Your task to perform on an android device: check android version Image 0: 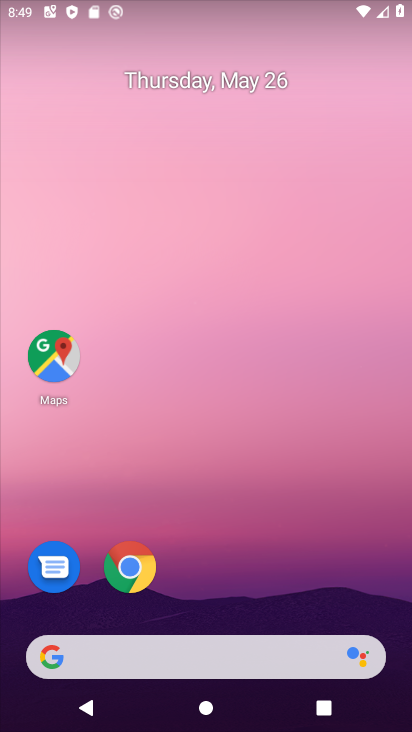
Step 0: press home button
Your task to perform on an android device: check android version Image 1: 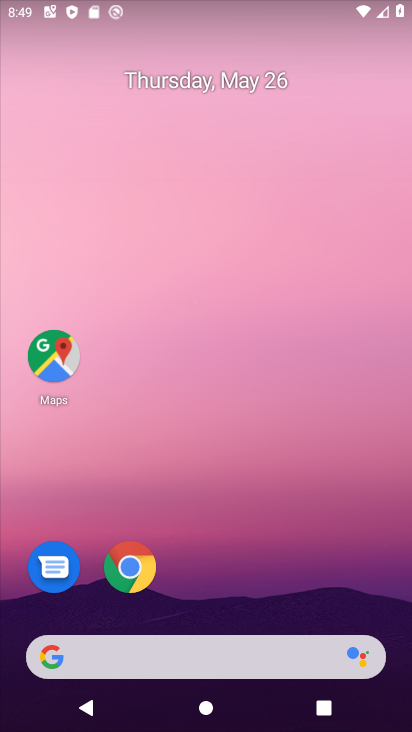
Step 1: drag from (179, 648) to (228, 58)
Your task to perform on an android device: check android version Image 2: 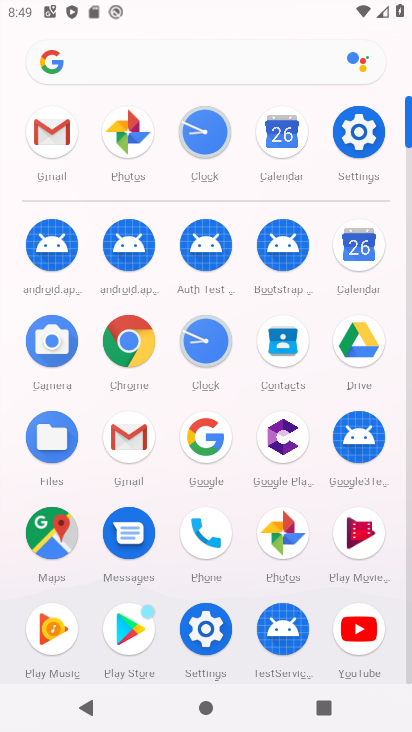
Step 2: click (355, 144)
Your task to perform on an android device: check android version Image 3: 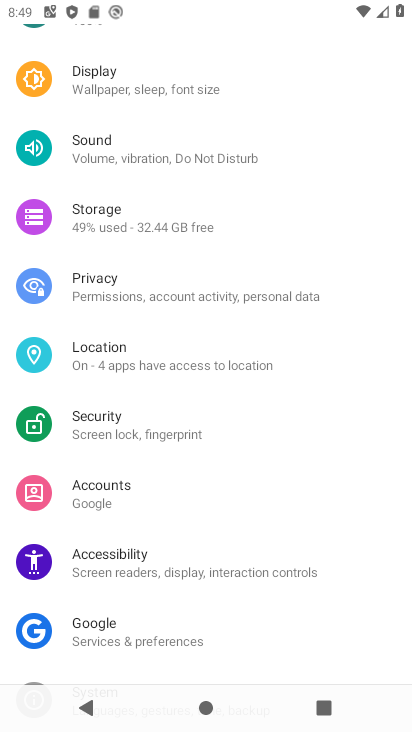
Step 3: drag from (189, 624) to (285, 100)
Your task to perform on an android device: check android version Image 4: 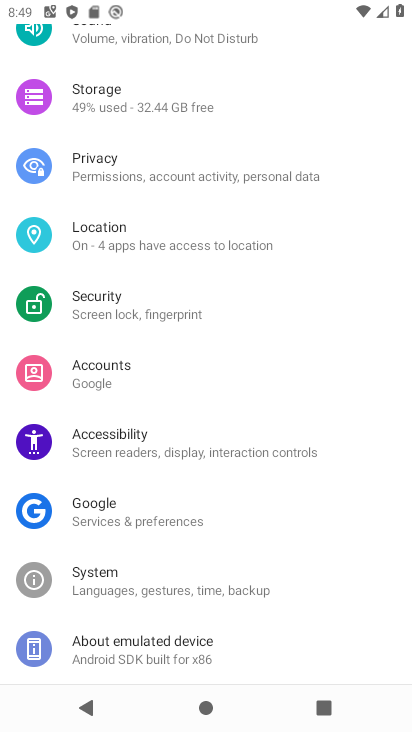
Step 4: click (145, 652)
Your task to perform on an android device: check android version Image 5: 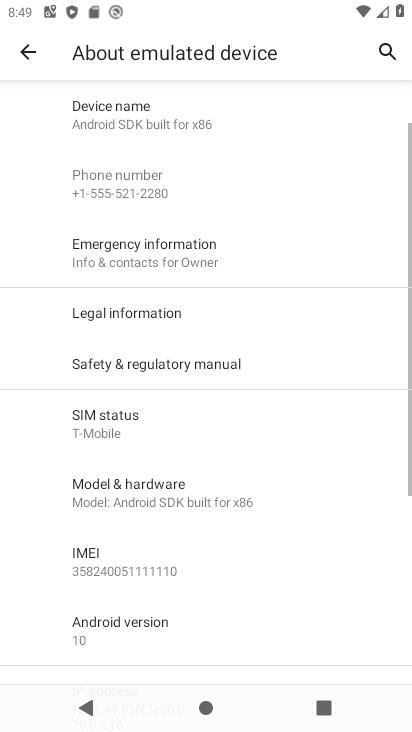
Step 5: drag from (211, 579) to (258, 367)
Your task to perform on an android device: check android version Image 6: 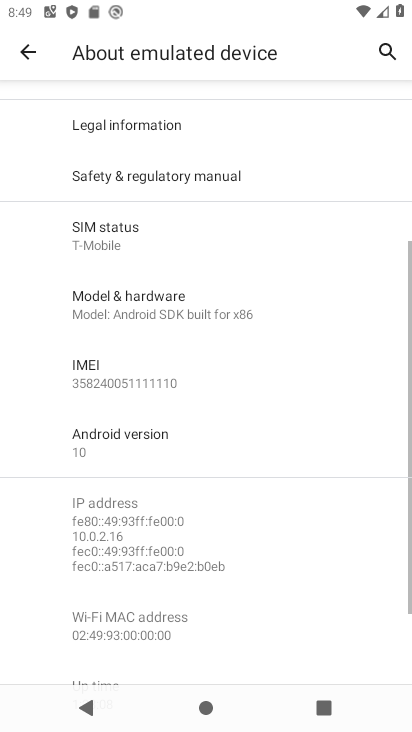
Step 6: click (107, 443)
Your task to perform on an android device: check android version Image 7: 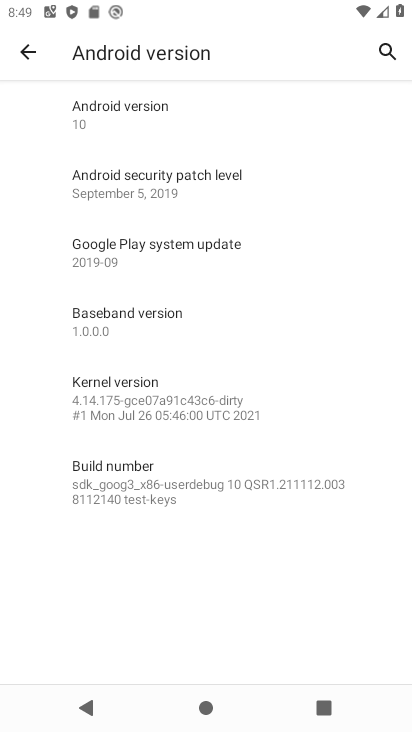
Step 7: task complete